Your task to perform on an android device: set default search engine in the chrome app Image 0: 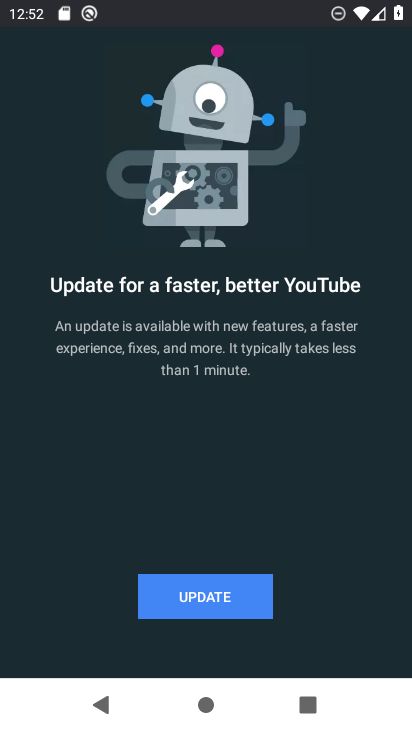
Step 0: press back button
Your task to perform on an android device: set default search engine in the chrome app Image 1: 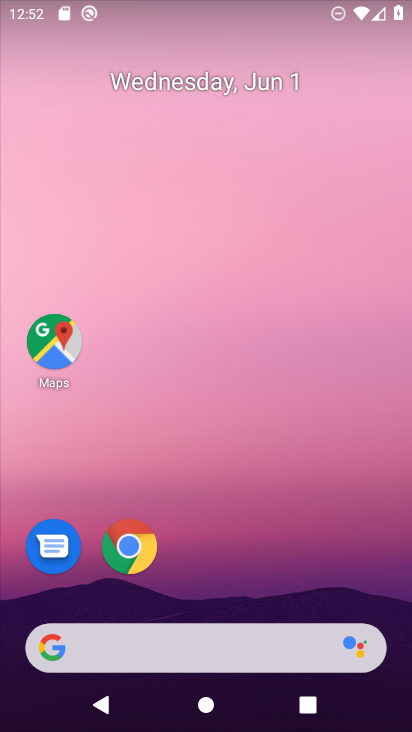
Step 1: click (127, 543)
Your task to perform on an android device: set default search engine in the chrome app Image 2: 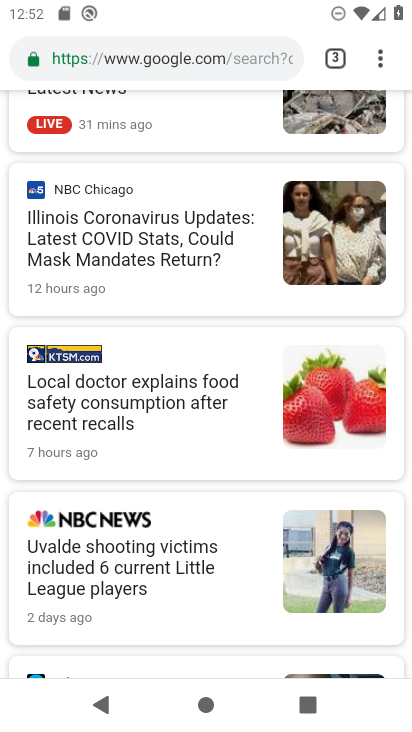
Step 2: click (381, 66)
Your task to perform on an android device: set default search engine in the chrome app Image 3: 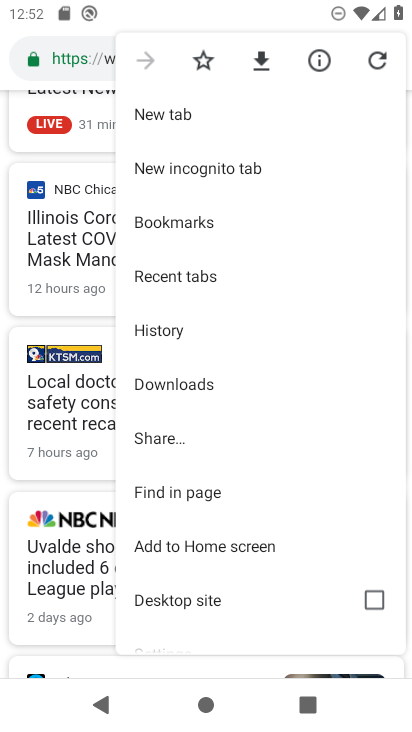
Step 3: drag from (194, 570) to (206, 395)
Your task to perform on an android device: set default search engine in the chrome app Image 4: 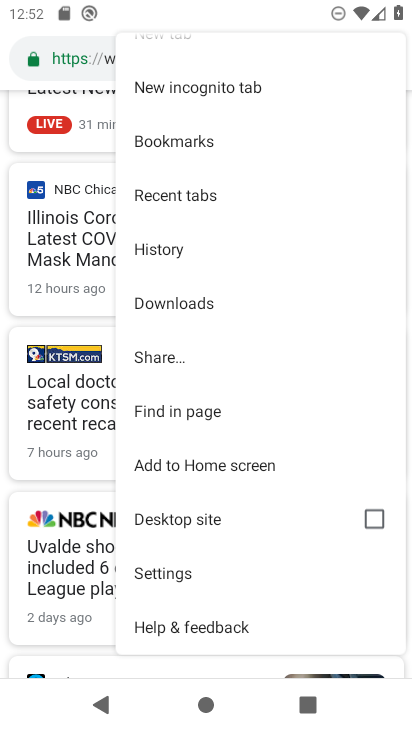
Step 4: click (158, 571)
Your task to perform on an android device: set default search engine in the chrome app Image 5: 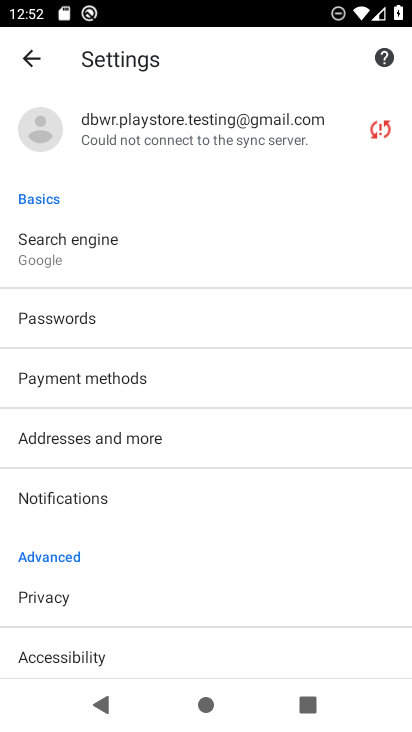
Step 5: click (64, 243)
Your task to perform on an android device: set default search engine in the chrome app Image 6: 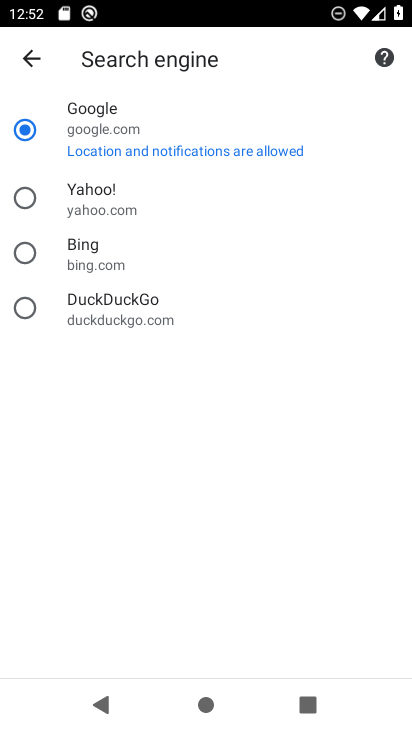
Step 6: click (76, 292)
Your task to perform on an android device: set default search engine in the chrome app Image 7: 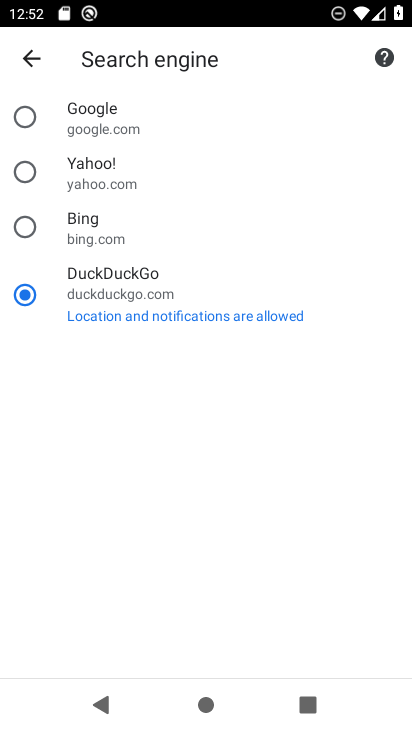
Step 7: task complete